Your task to perform on an android device: visit the assistant section in the google photos Image 0: 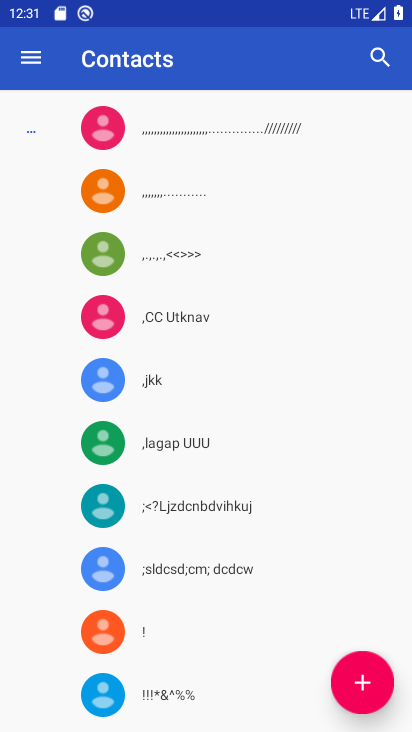
Step 0: press home button
Your task to perform on an android device: visit the assistant section in the google photos Image 1: 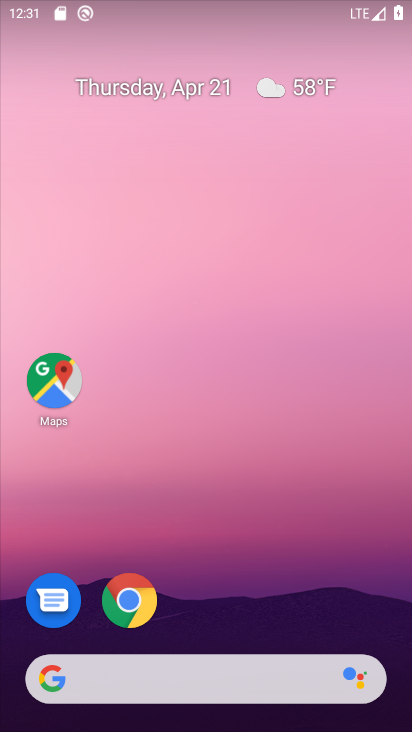
Step 1: drag from (276, 609) to (244, 107)
Your task to perform on an android device: visit the assistant section in the google photos Image 2: 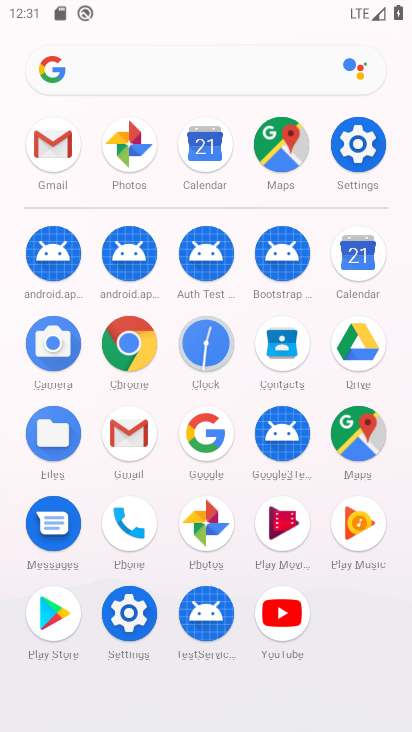
Step 2: click (131, 140)
Your task to perform on an android device: visit the assistant section in the google photos Image 3: 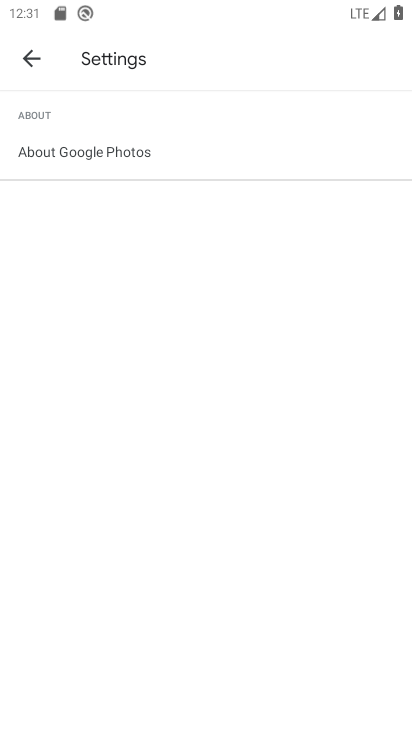
Step 3: click (34, 55)
Your task to perform on an android device: visit the assistant section in the google photos Image 4: 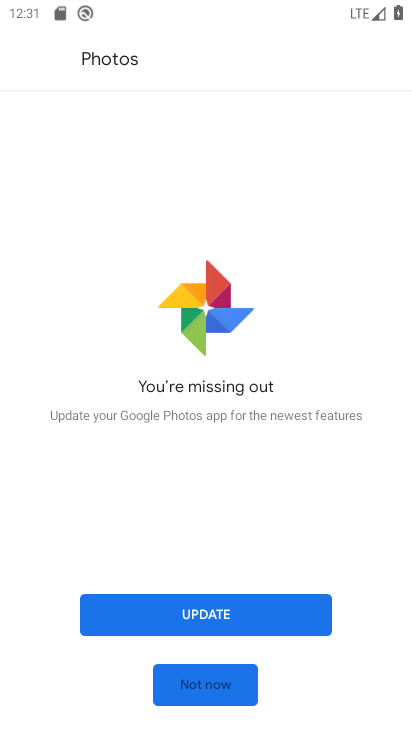
Step 4: click (234, 686)
Your task to perform on an android device: visit the assistant section in the google photos Image 5: 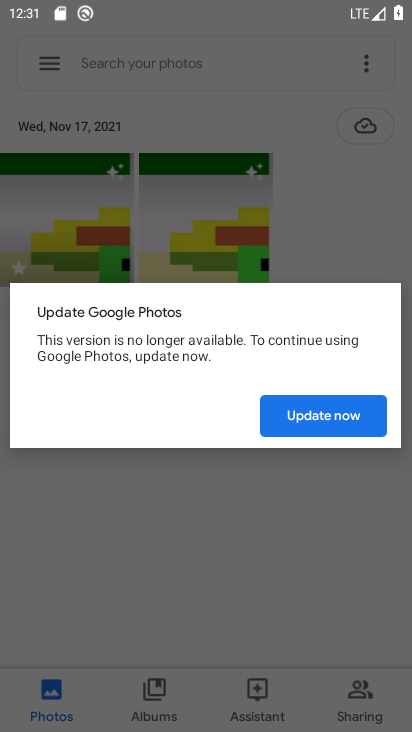
Step 5: click (345, 417)
Your task to perform on an android device: visit the assistant section in the google photos Image 6: 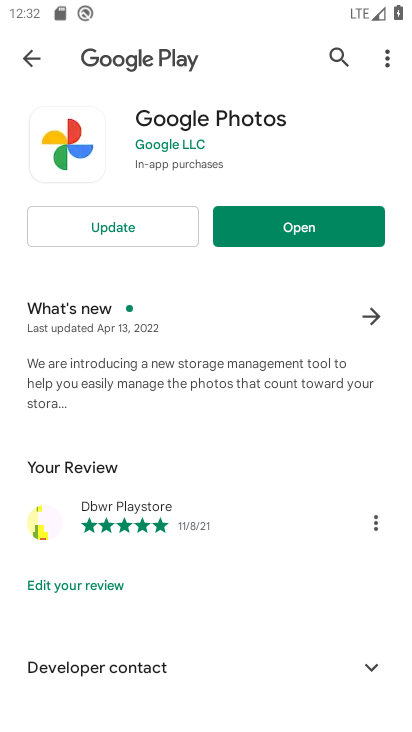
Step 6: press back button
Your task to perform on an android device: visit the assistant section in the google photos Image 7: 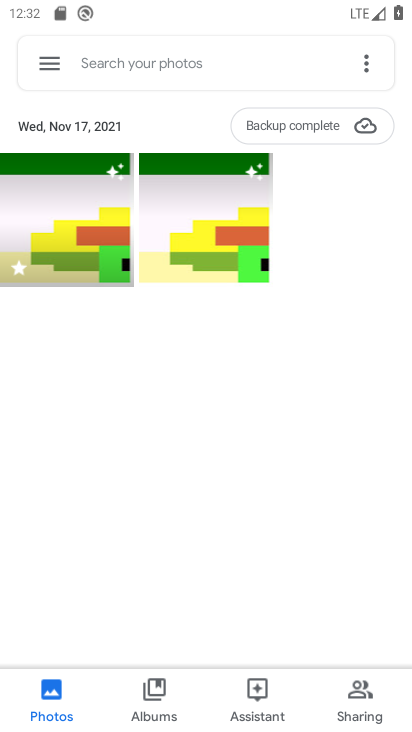
Step 7: click (267, 689)
Your task to perform on an android device: visit the assistant section in the google photos Image 8: 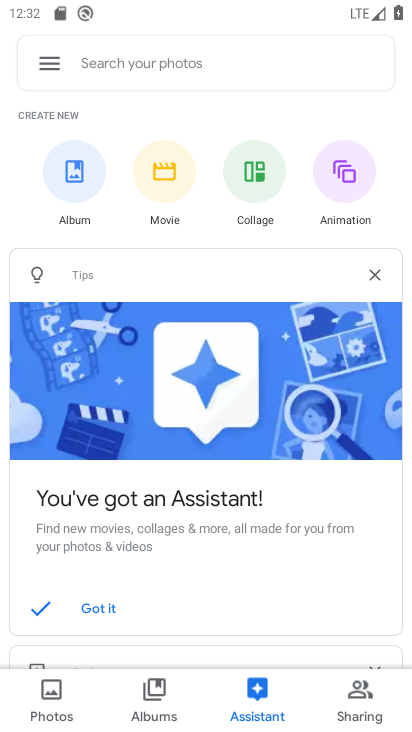
Step 8: task complete